Your task to perform on an android device: open sync settings in chrome Image 0: 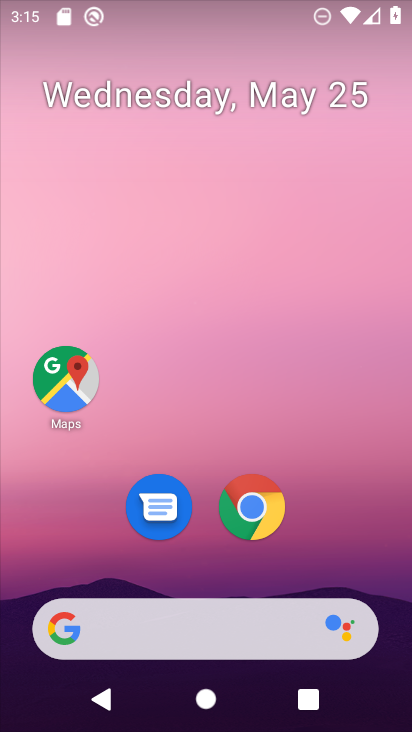
Step 0: click (261, 527)
Your task to perform on an android device: open sync settings in chrome Image 1: 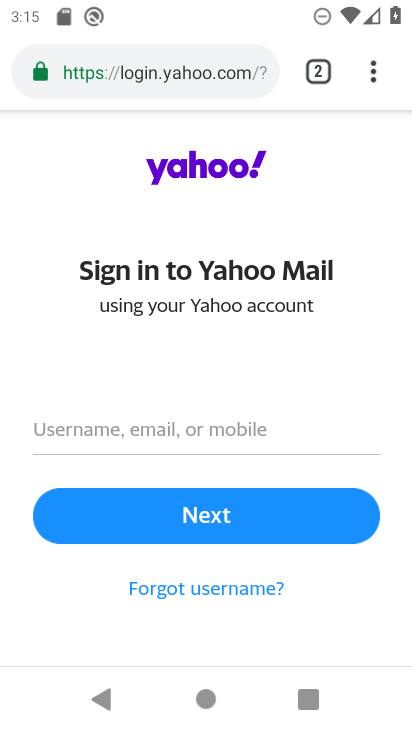
Step 1: click (384, 76)
Your task to perform on an android device: open sync settings in chrome Image 2: 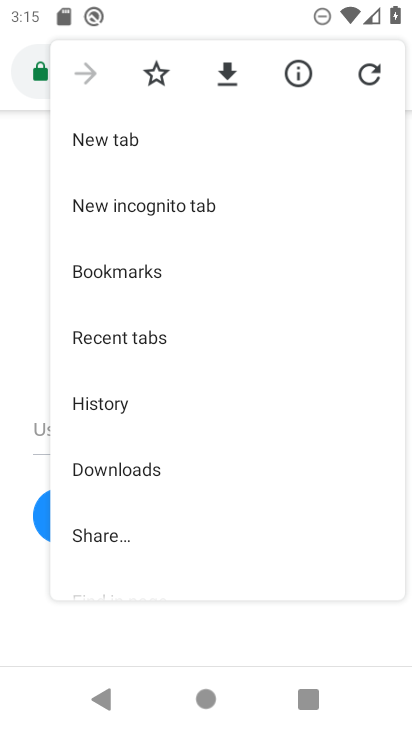
Step 2: drag from (190, 460) to (239, 105)
Your task to perform on an android device: open sync settings in chrome Image 3: 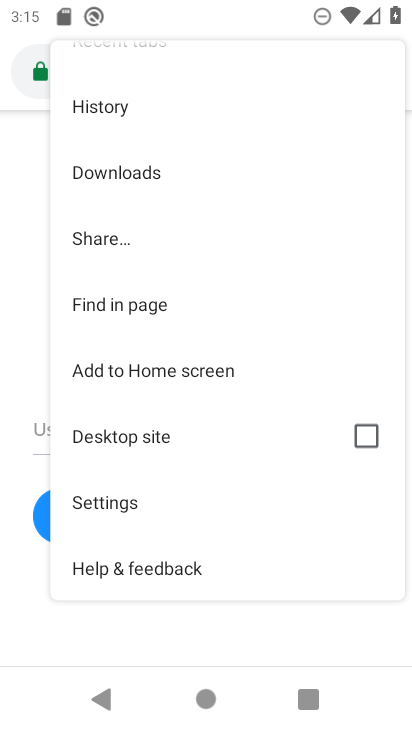
Step 3: click (135, 490)
Your task to perform on an android device: open sync settings in chrome Image 4: 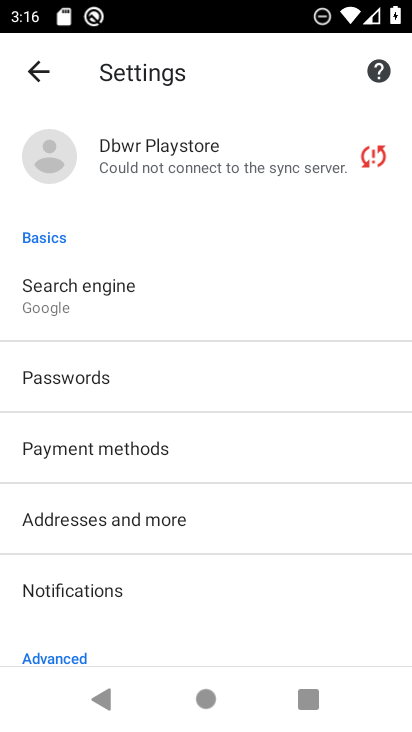
Step 4: click (259, 156)
Your task to perform on an android device: open sync settings in chrome Image 5: 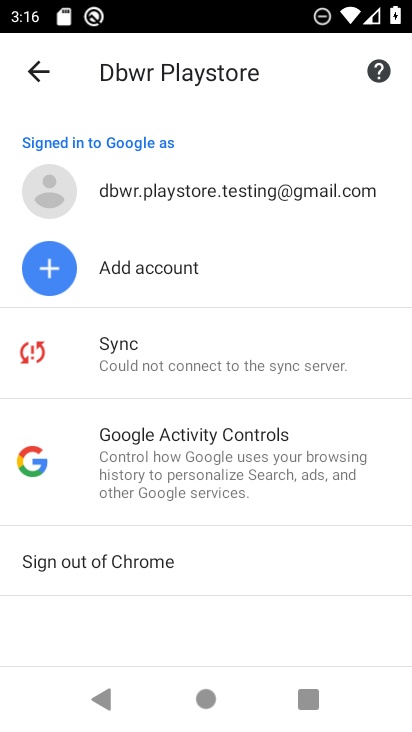
Step 5: click (235, 372)
Your task to perform on an android device: open sync settings in chrome Image 6: 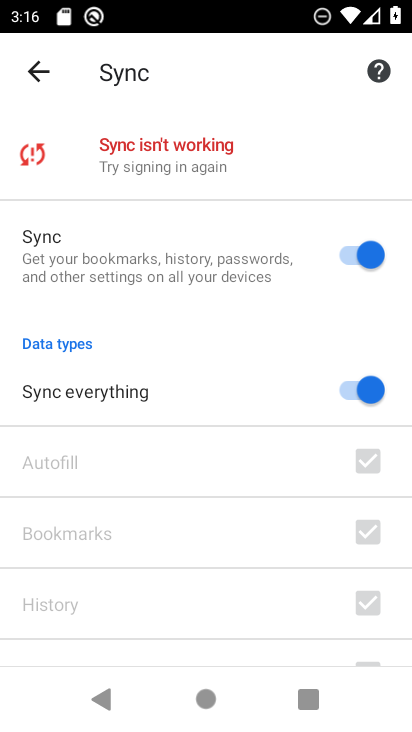
Step 6: task complete